Your task to perform on an android device: Open Google Maps and go to "Timeline" Image 0: 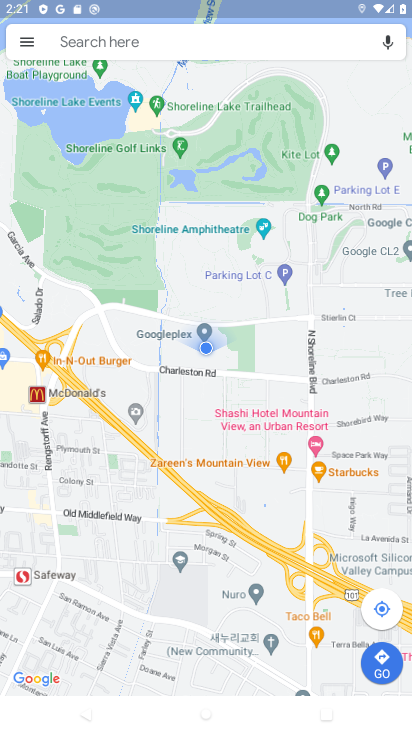
Step 0: click (26, 45)
Your task to perform on an android device: Open Google Maps and go to "Timeline" Image 1: 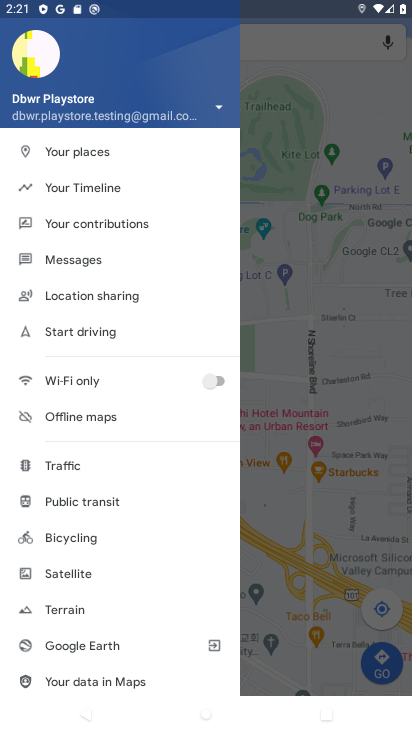
Step 1: click (80, 192)
Your task to perform on an android device: Open Google Maps and go to "Timeline" Image 2: 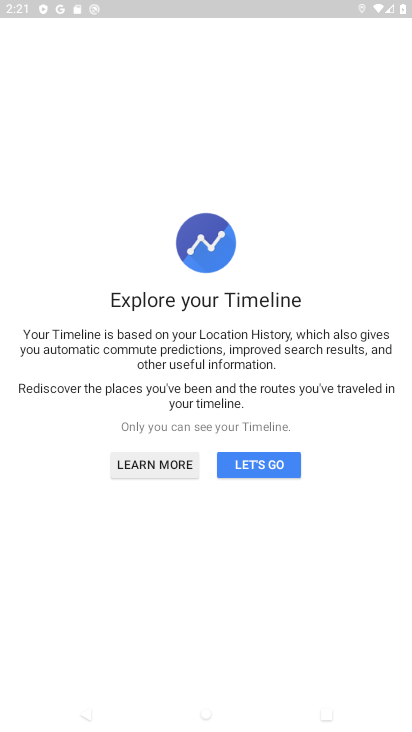
Step 2: click (248, 470)
Your task to perform on an android device: Open Google Maps and go to "Timeline" Image 3: 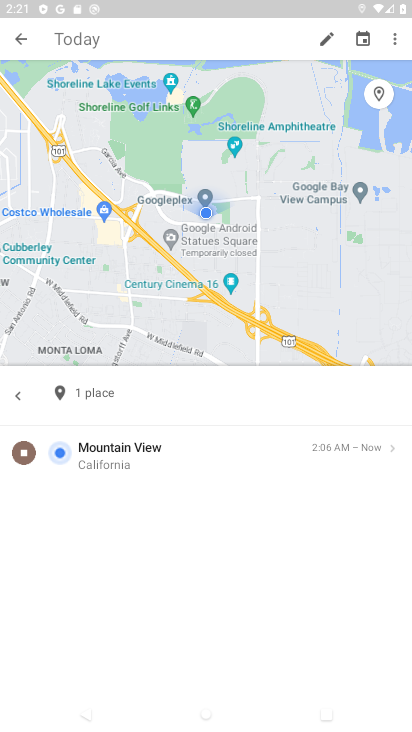
Step 3: task complete